Your task to perform on an android device: Go to calendar. Show me events next week Image 0: 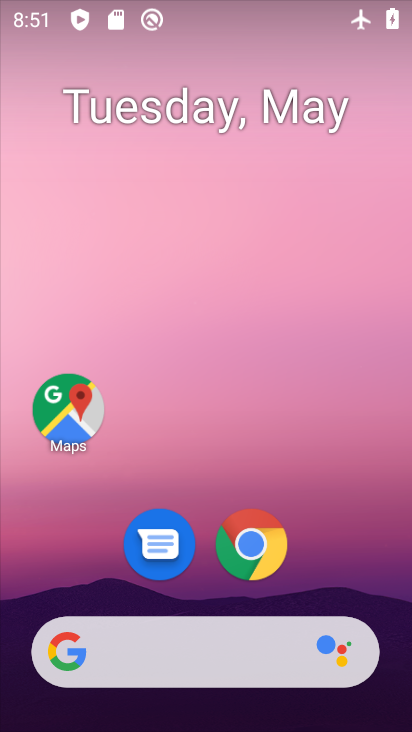
Step 0: drag from (359, 600) to (334, 190)
Your task to perform on an android device: Go to calendar. Show me events next week Image 1: 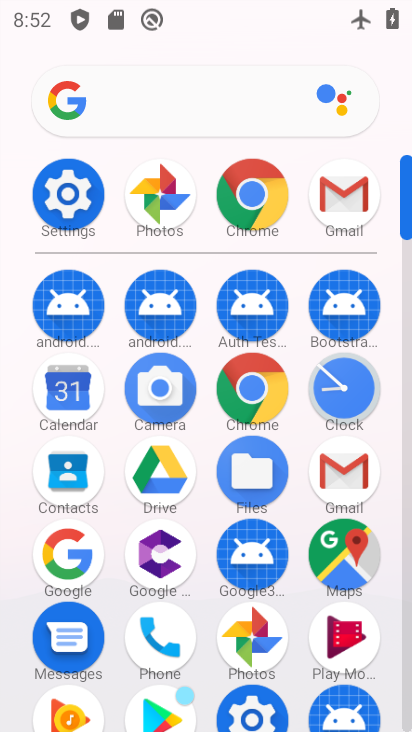
Step 1: click (75, 388)
Your task to perform on an android device: Go to calendar. Show me events next week Image 2: 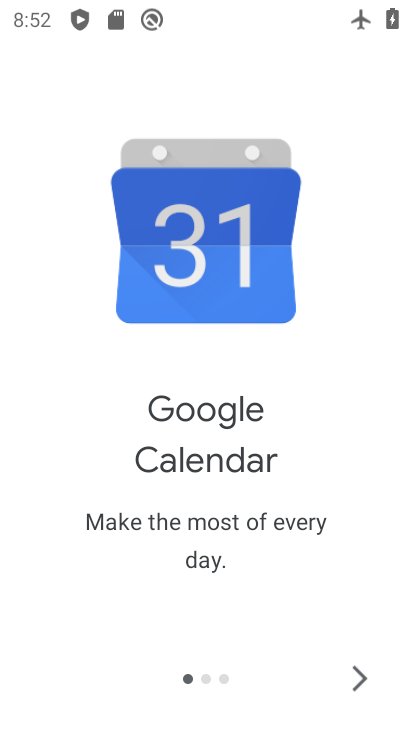
Step 2: click (356, 688)
Your task to perform on an android device: Go to calendar. Show me events next week Image 3: 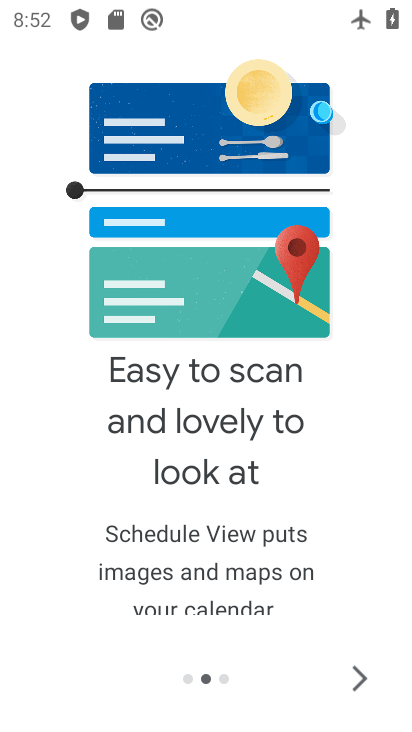
Step 3: click (354, 687)
Your task to perform on an android device: Go to calendar. Show me events next week Image 4: 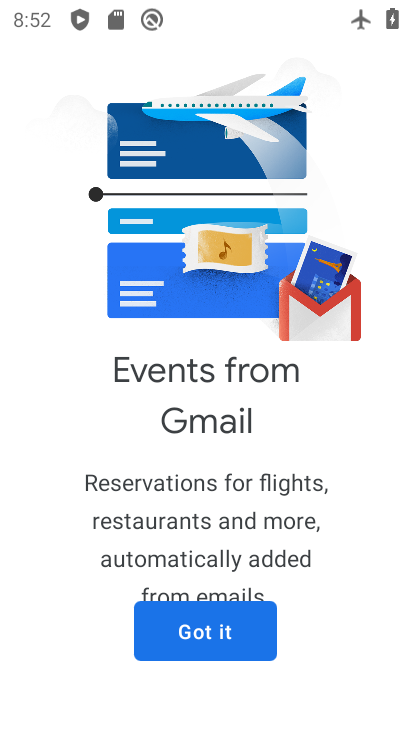
Step 4: click (229, 653)
Your task to perform on an android device: Go to calendar. Show me events next week Image 5: 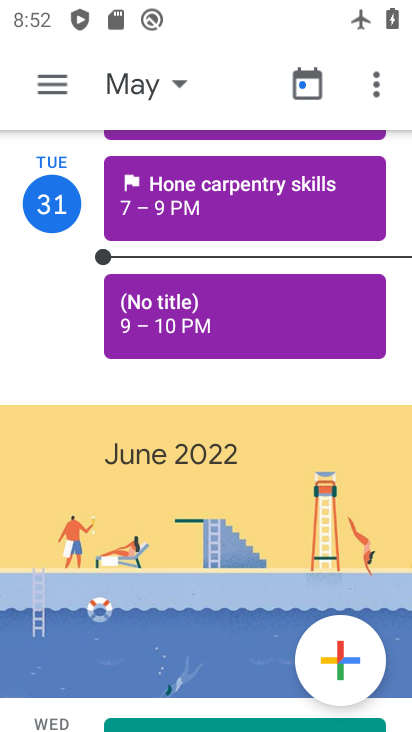
Step 5: task complete